Your task to perform on an android device: When is my next meeting? Image 0: 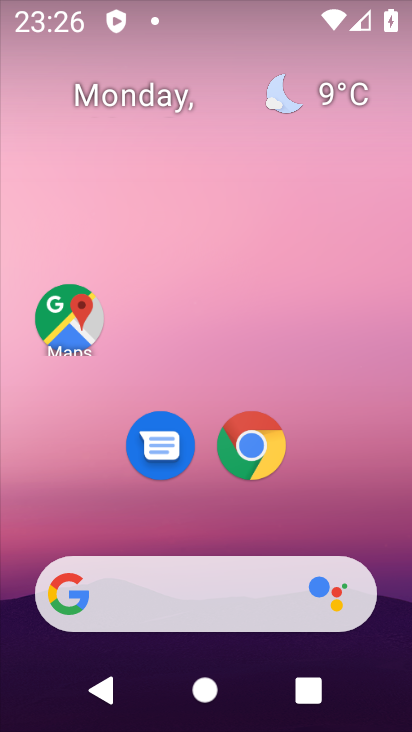
Step 0: drag from (255, 552) to (277, 81)
Your task to perform on an android device: When is my next meeting? Image 1: 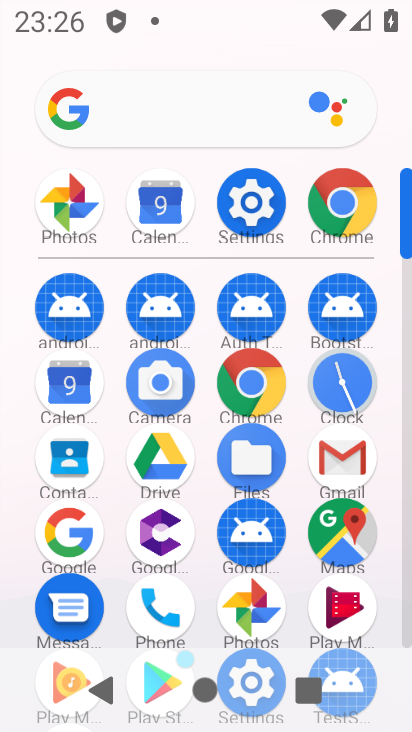
Step 1: click (63, 387)
Your task to perform on an android device: When is my next meeting? Image 2: 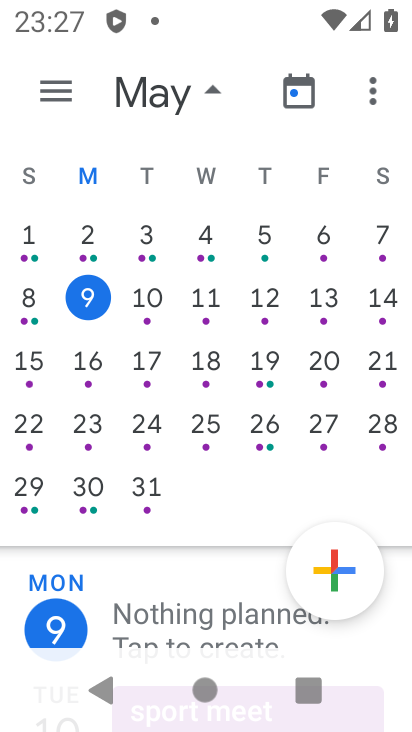
Step 2: drag from (311, 398) to (36, 390)
Your task to perform on an android device: When is my next meeting? Image 3: 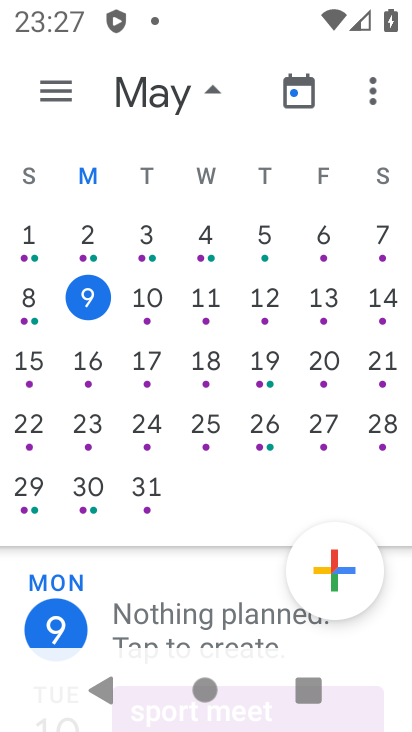
Step 3: click (158, 305)
Your task to perform on an android device: When is my next meeting? Image 4: 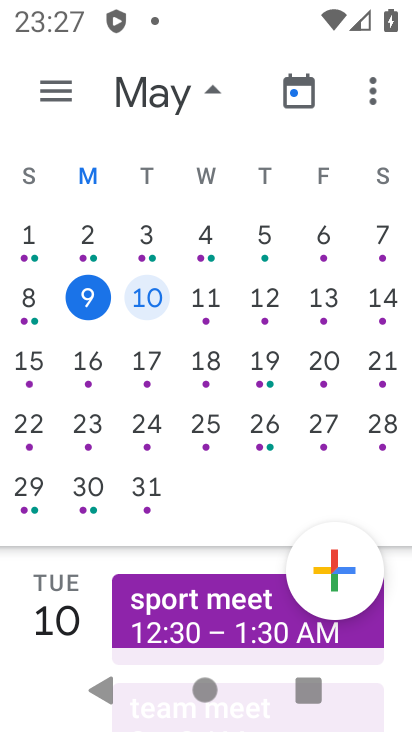
Step 4: task complete